Your task to perform on an android device: Search for Mexican restaurants on Maps Image 0: 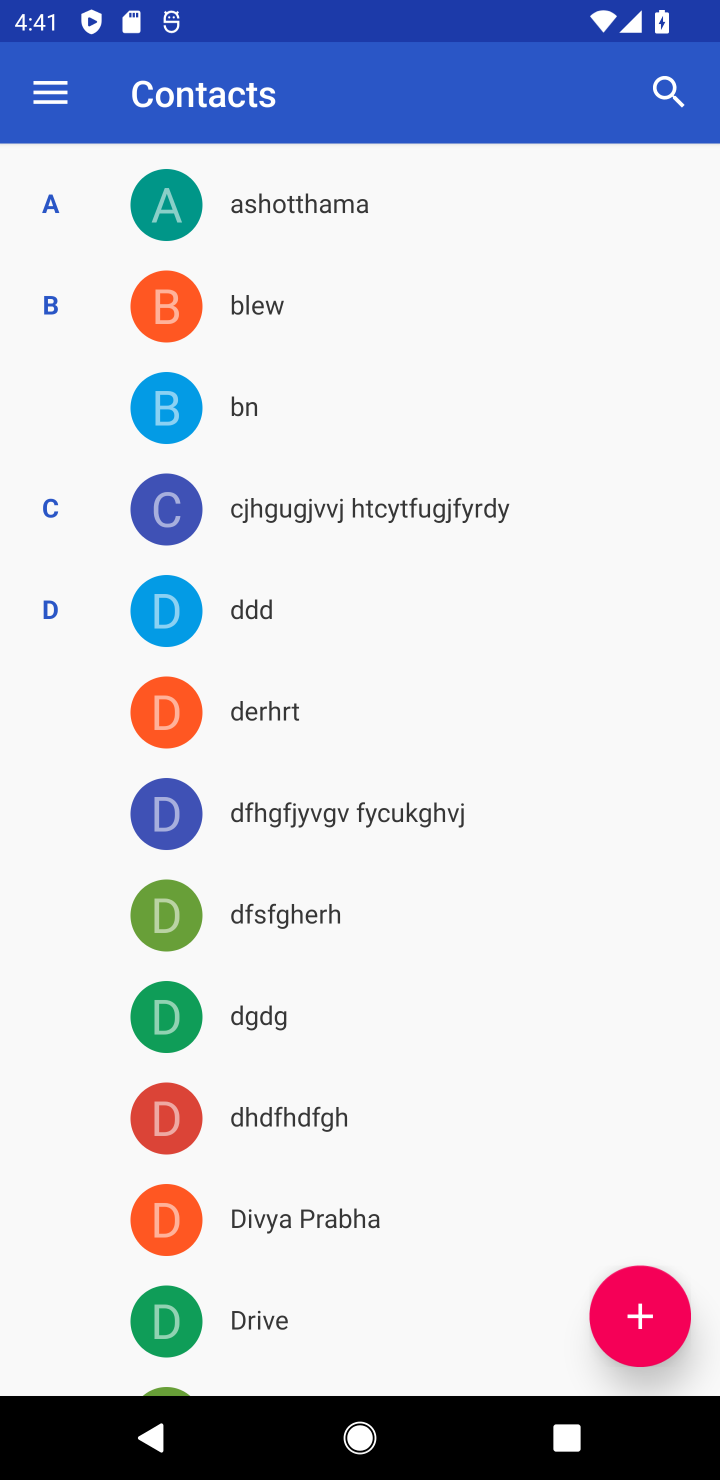
Step 0: press back button
Your task to perform on an android device: Search for Mexican restaurants on Maps Image 1: 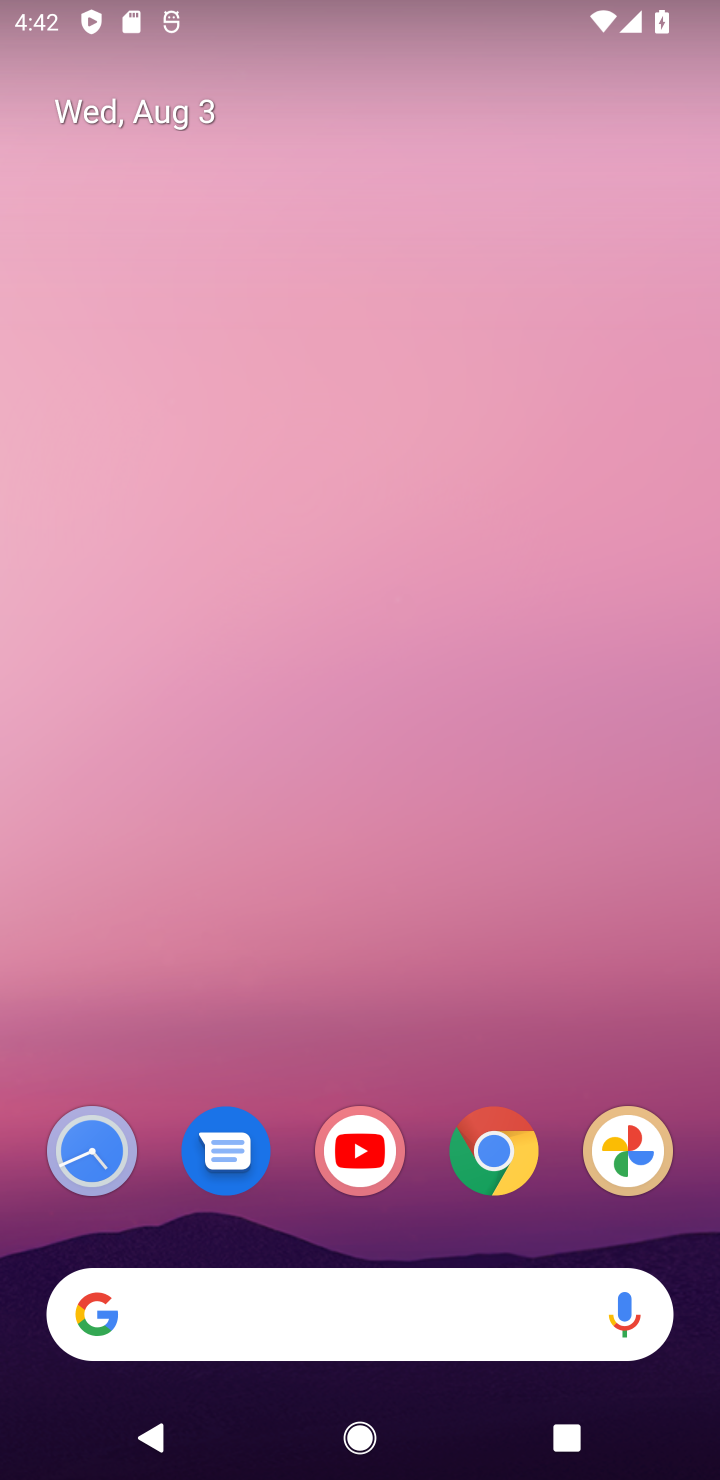
Step 1: drag from (458, 1358) to (299, 505)
Your task to perform on an android device: Search for Mexican restaurants on Maps Image 2: 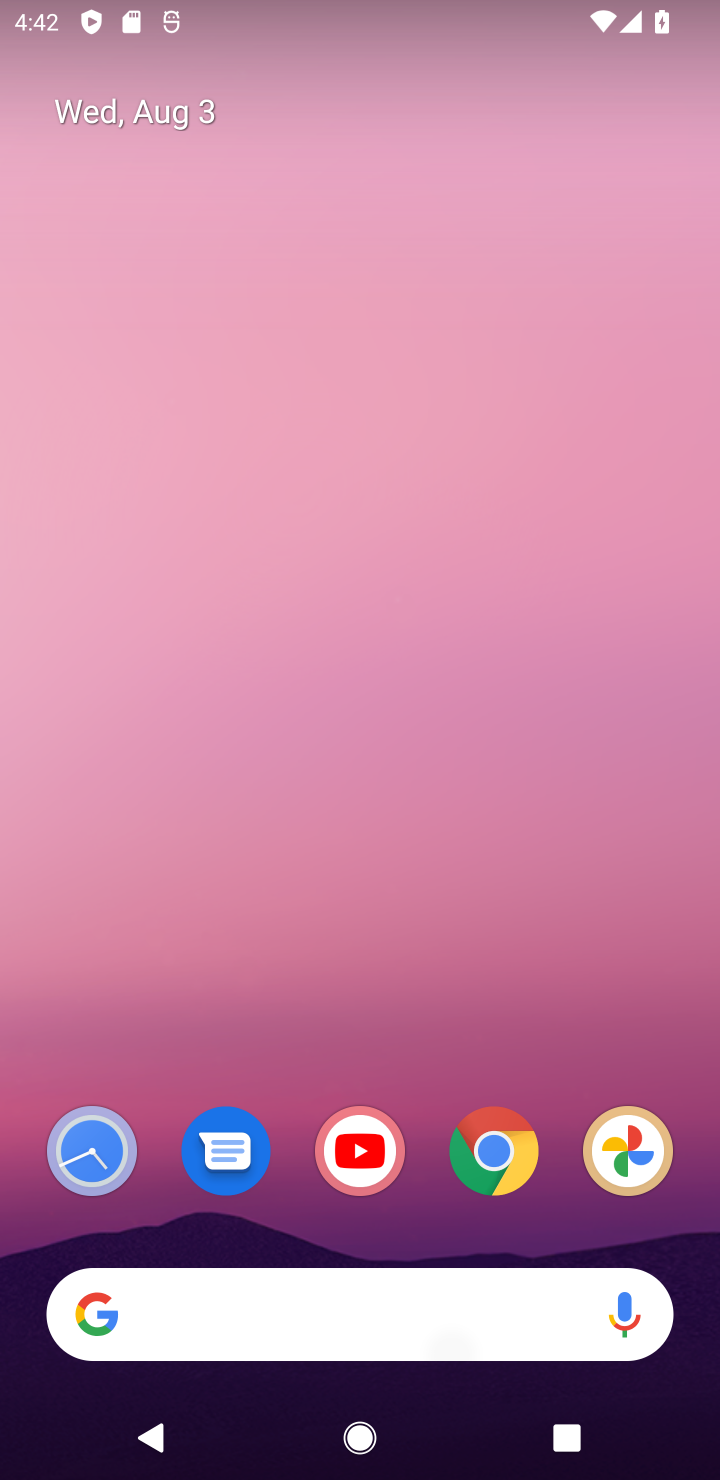
Step 2: drag from (410, 513) to (364, 194)
Your task to perform on an android device: Search for Mexican restaurants on Maps Image 3: 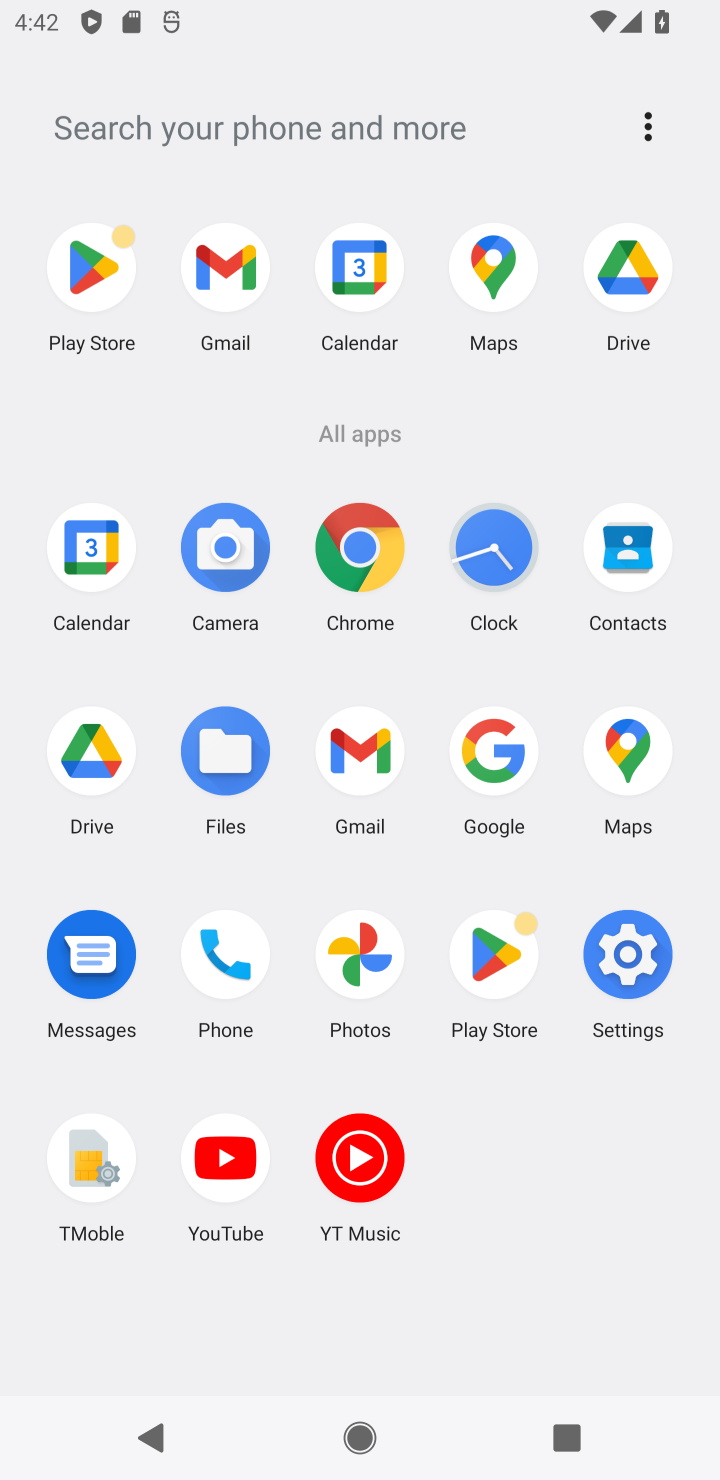
Step 3: drag from (492, 1173) to (298, 474)
Your task to perform on an android device: Search for Mexican restaurants on Maps Image 4: 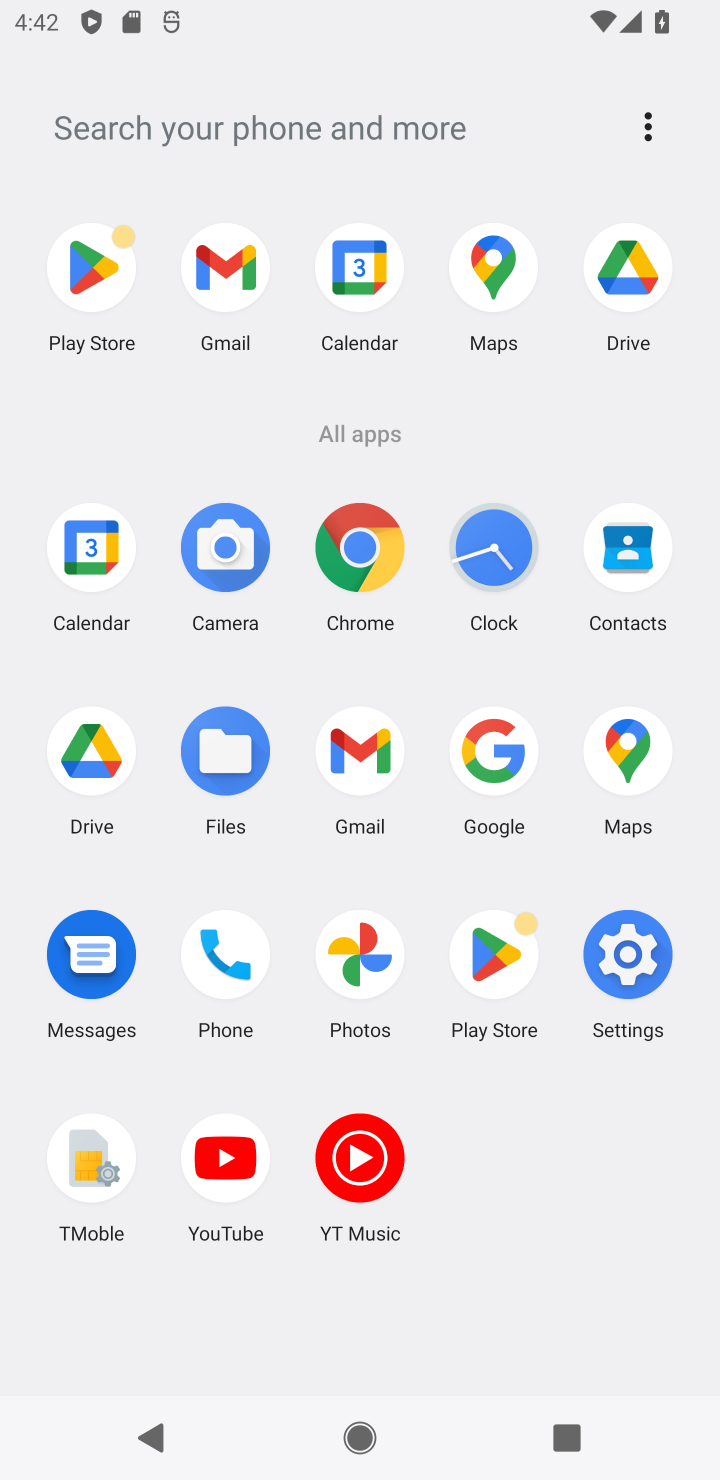
Step 4: click (503, 262)
Your task to perform on an android device: Search for Mexican restaurants on Maps Image 5: 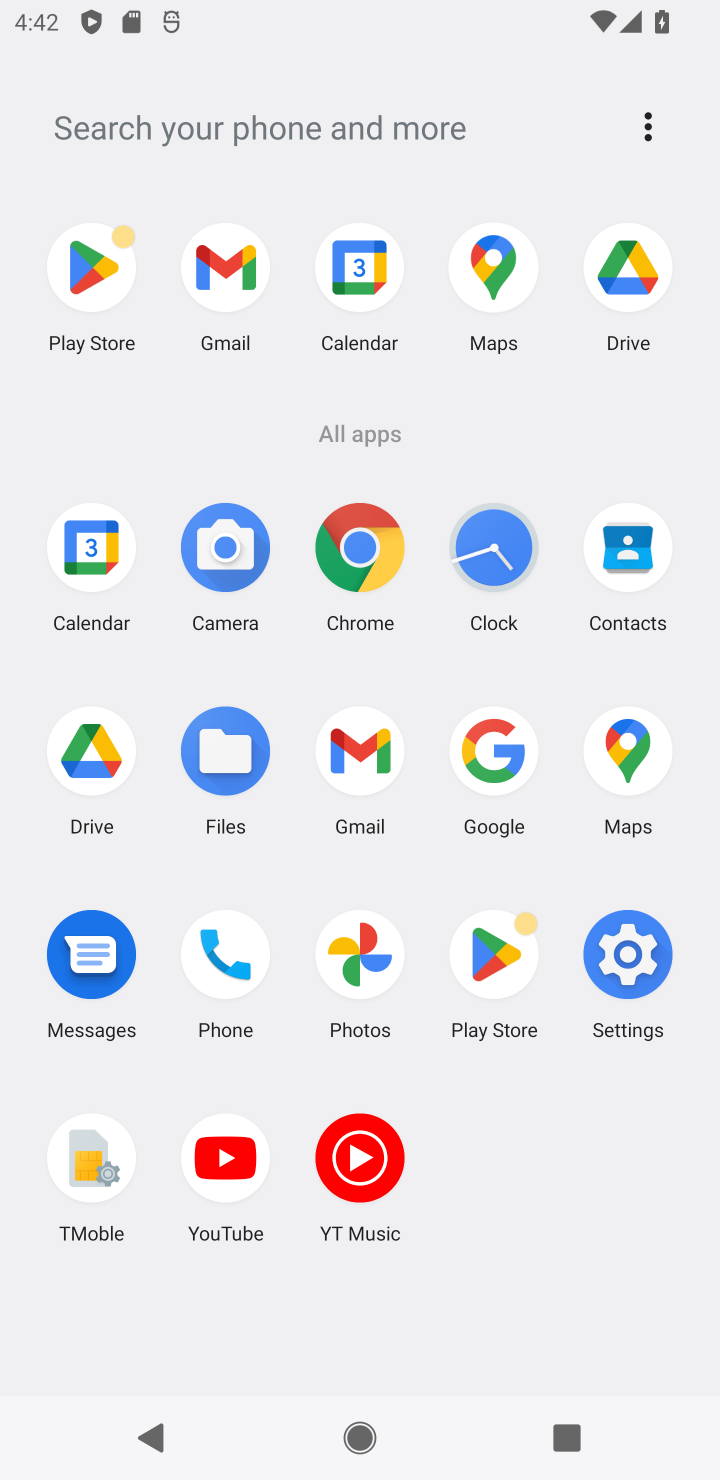
Step 5: click (505, 260)
Your task to perform on an android device: Search for Mexican restaurants on Maps Image 6: 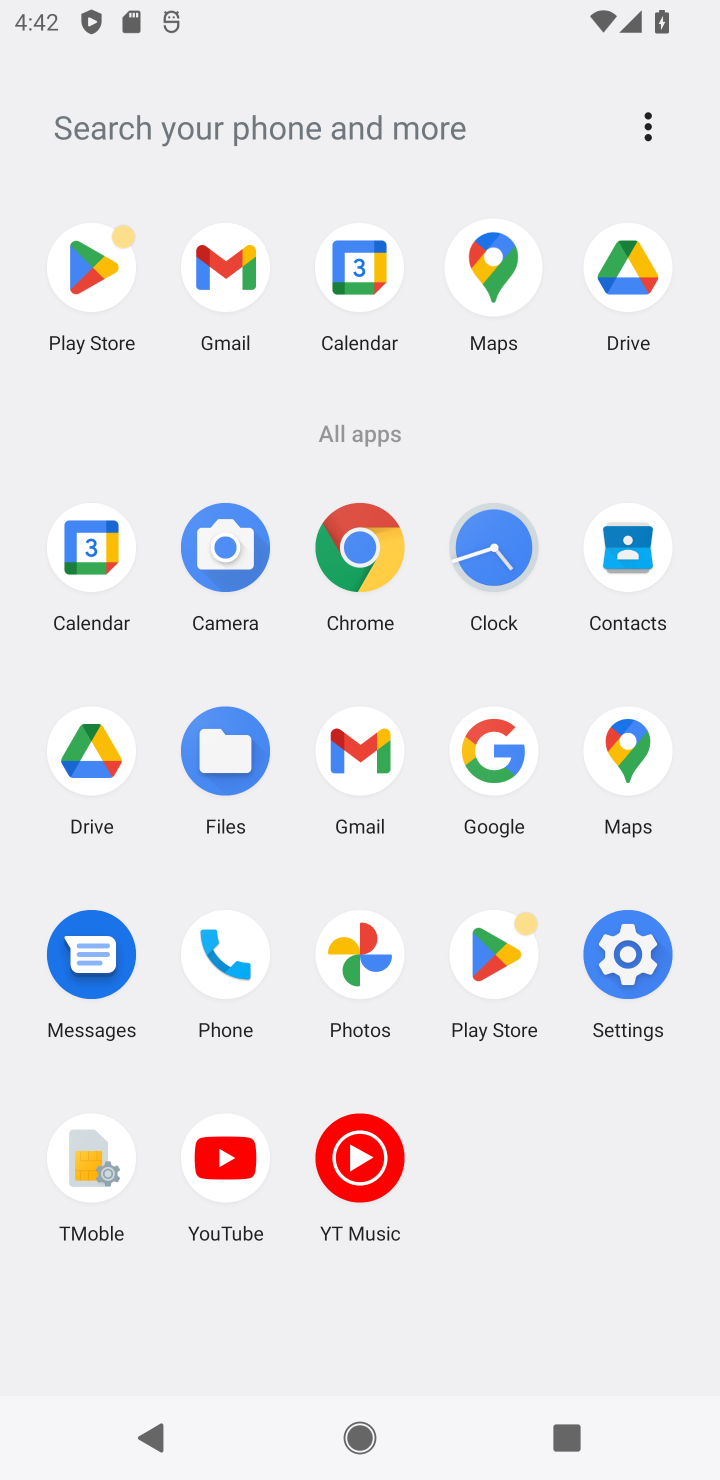
Step 6: click (507, 260)
Your task to perform on an android device: Search for Mexican restaurants on Maps Image 7: 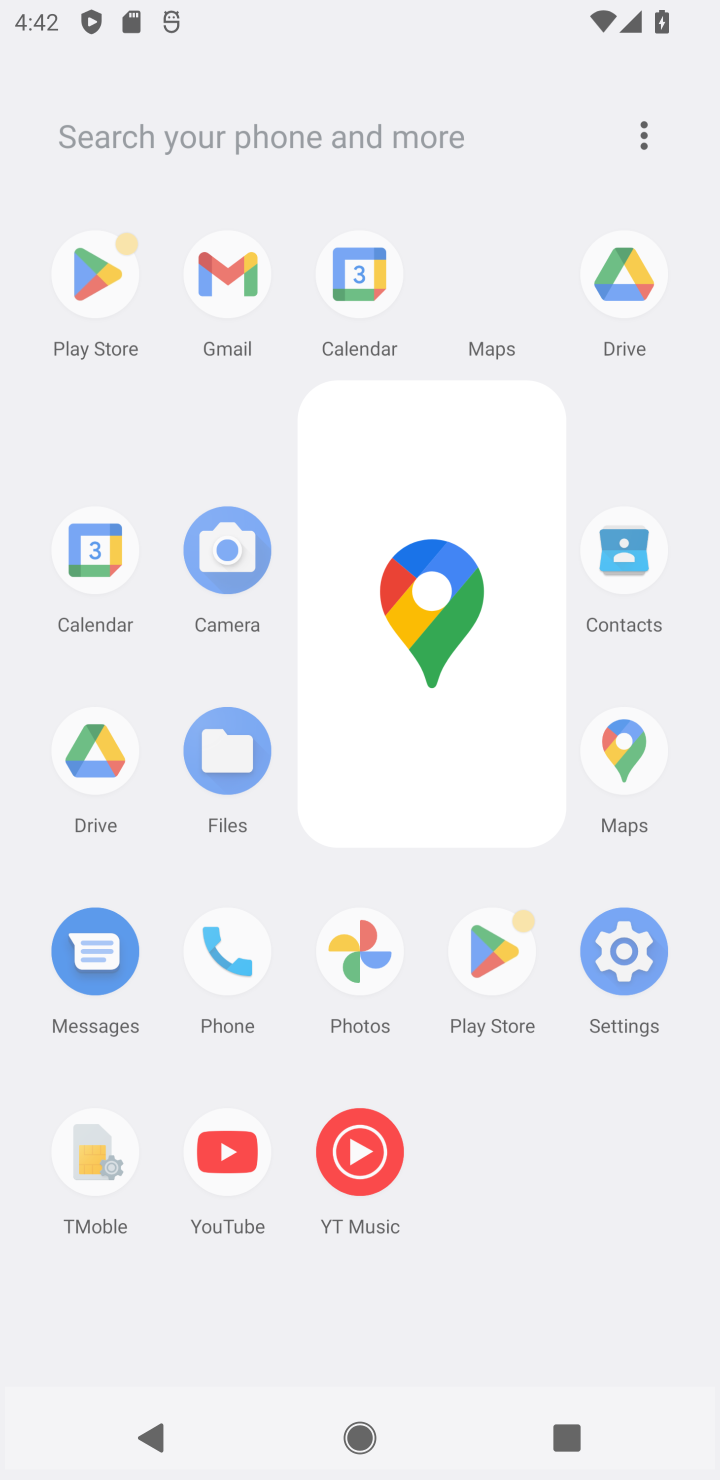
Step 7: click (514, 262)
Your task to perform on an android device: Search for Mexican restaurants on Maps Image 8: 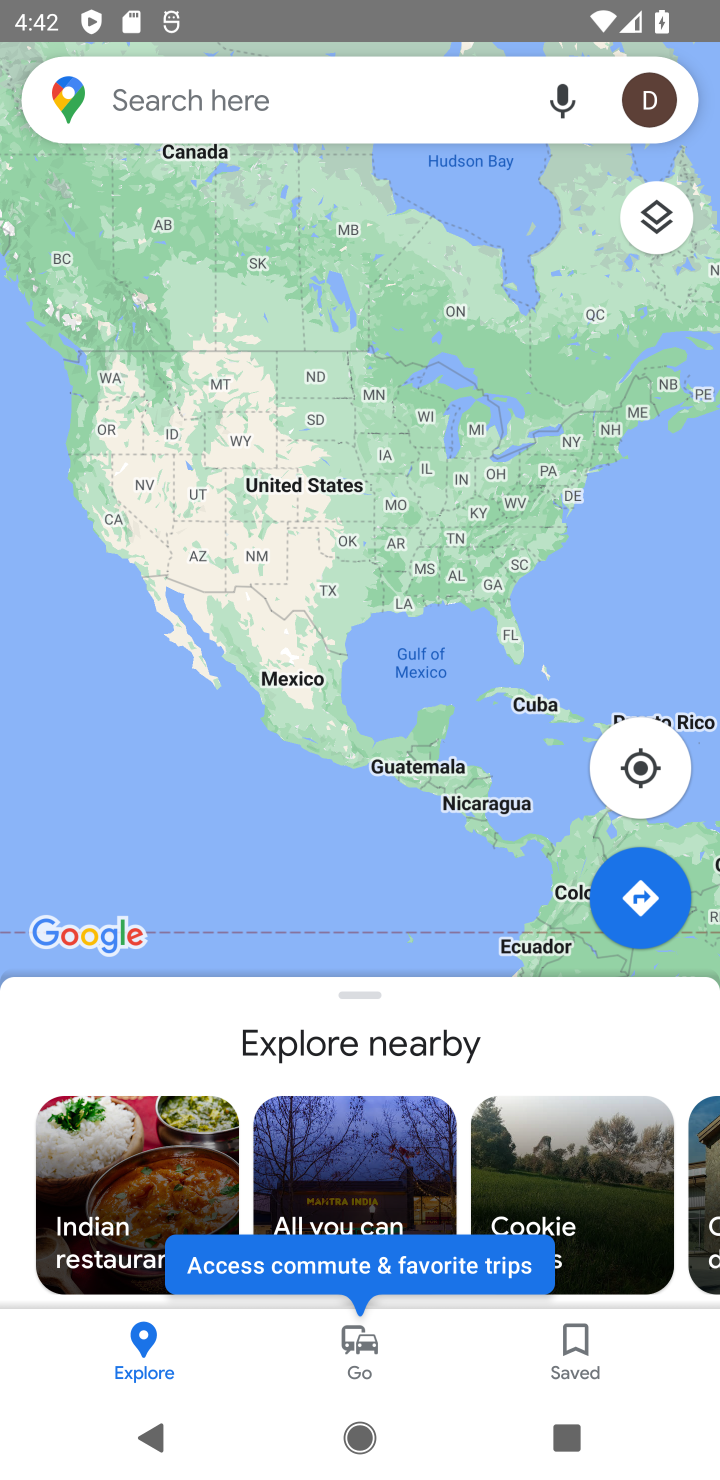
Step 8: click (110, 75)
Your task to perform on an android device: Search for Mexican restaurants on Maps Image 9: 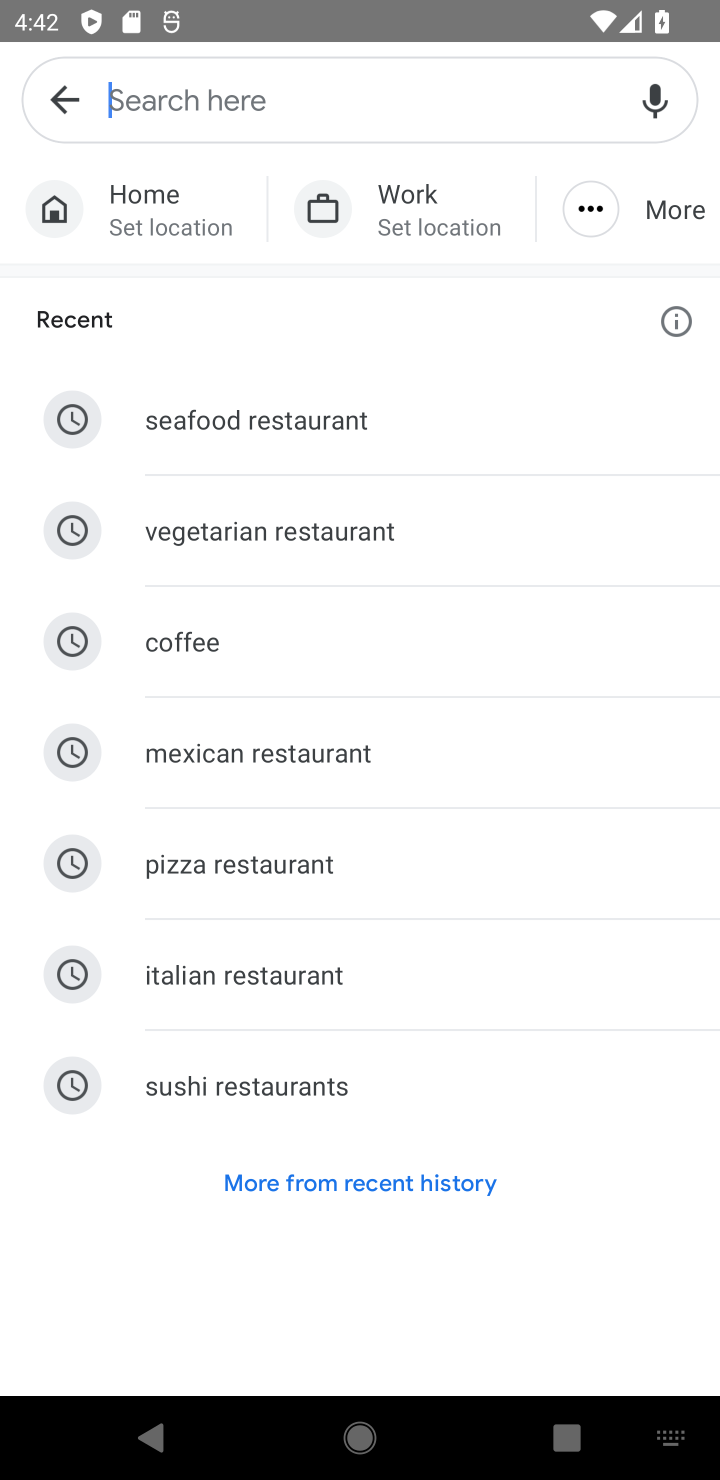
Step 9: click (269, 750)
Your task to perform on an android device: Search for Mexican restaurants on Maps Image 10: 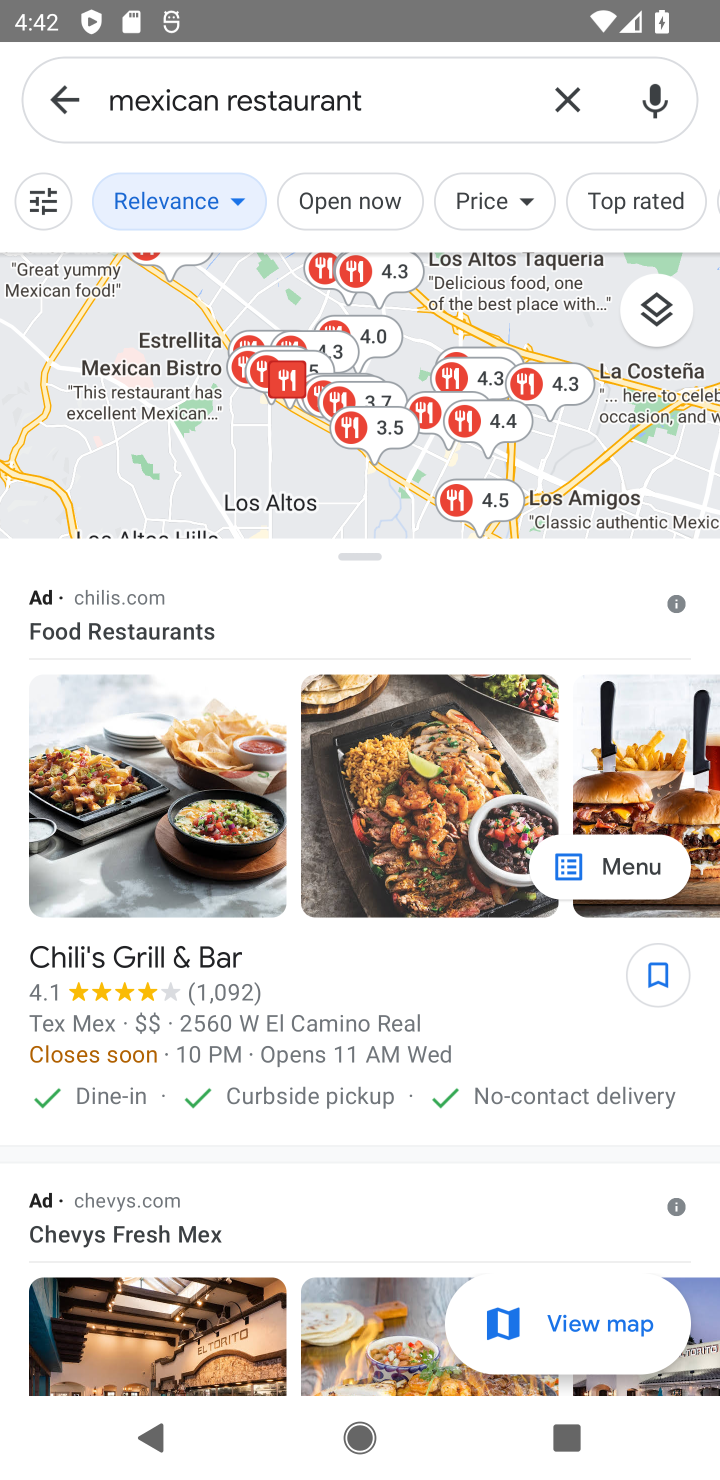
Step 10: task complete